Your task to perform on an android device: See recent photos Image 0: 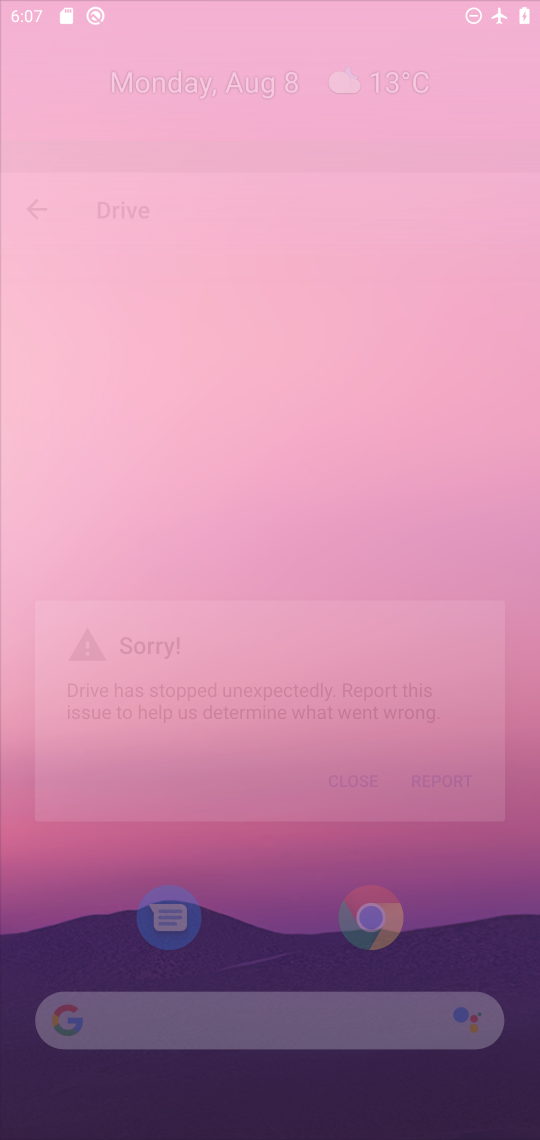
Step 0: press home button
Your task to perform on an android device: See recent photos Image 1: 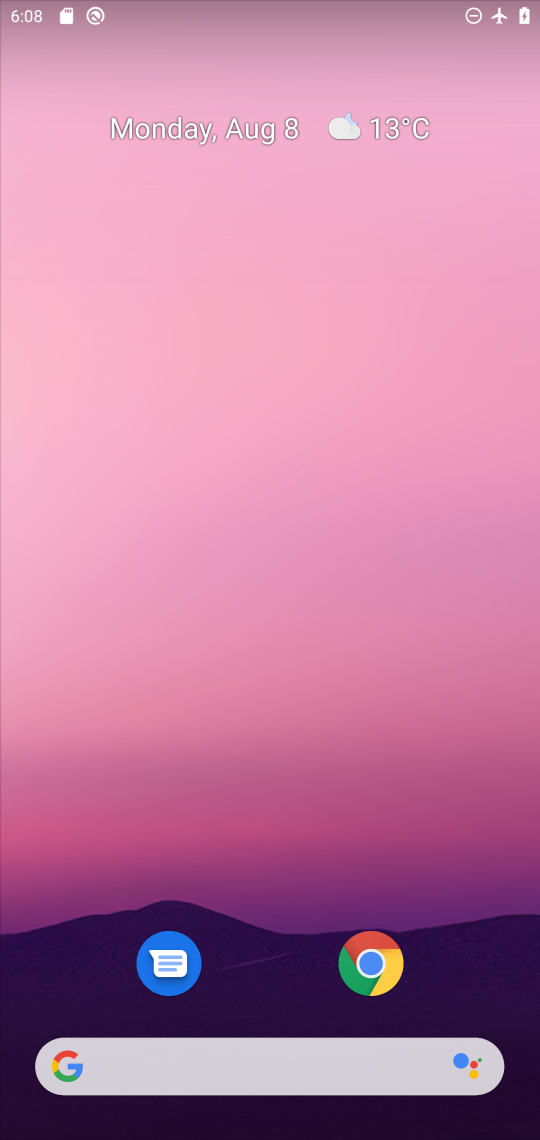
Step 1: press home button
Your task to perform on an android device: See recent photos Image 2: 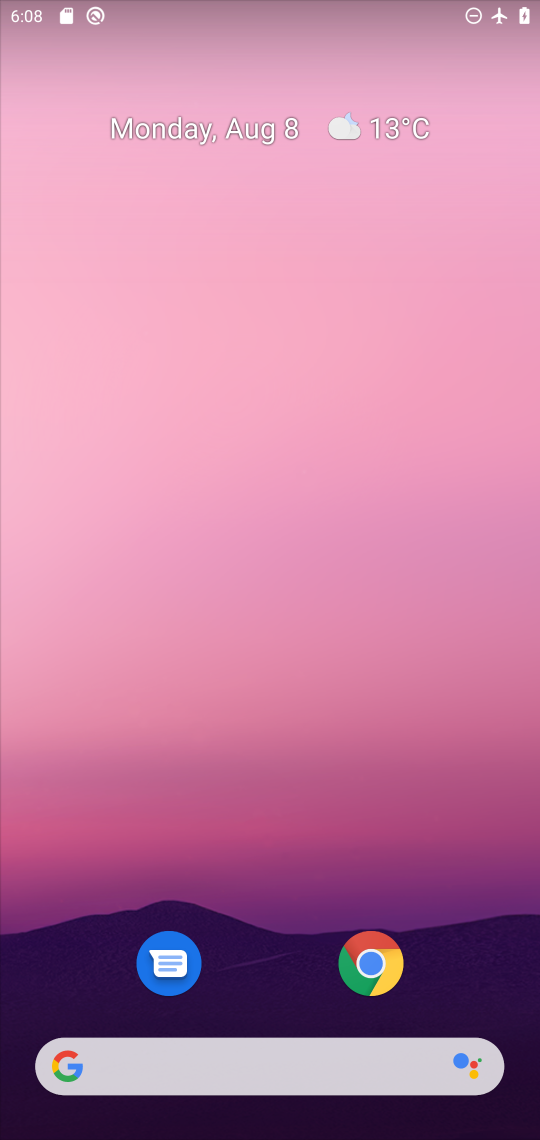
Step 2: drag from (251, 829) to (251, 28)
Your task to perform on an android device: See recent photos Image 3: 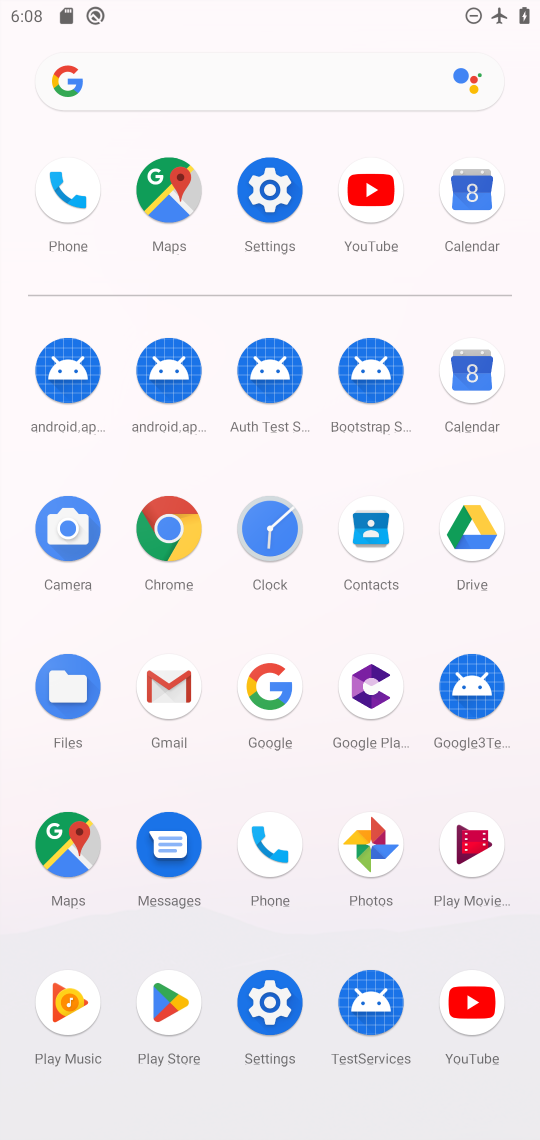
Step 3: click (359, 842)
Your task to perform on an android device: See recent photos Image 4: 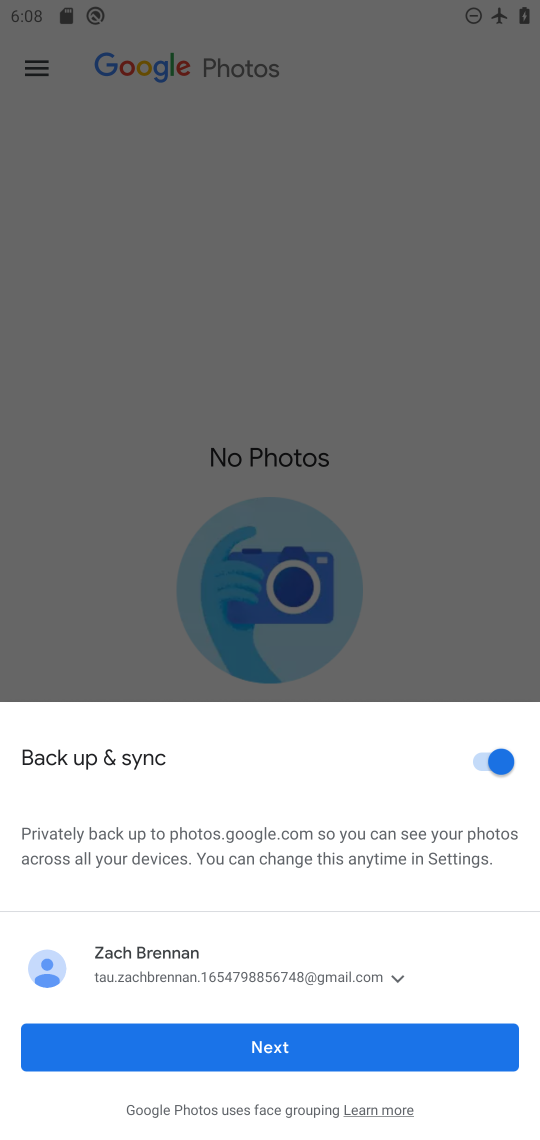
Step 4: click (349, 1044)
Your task to perform on an android device: See recent photos Image 5: 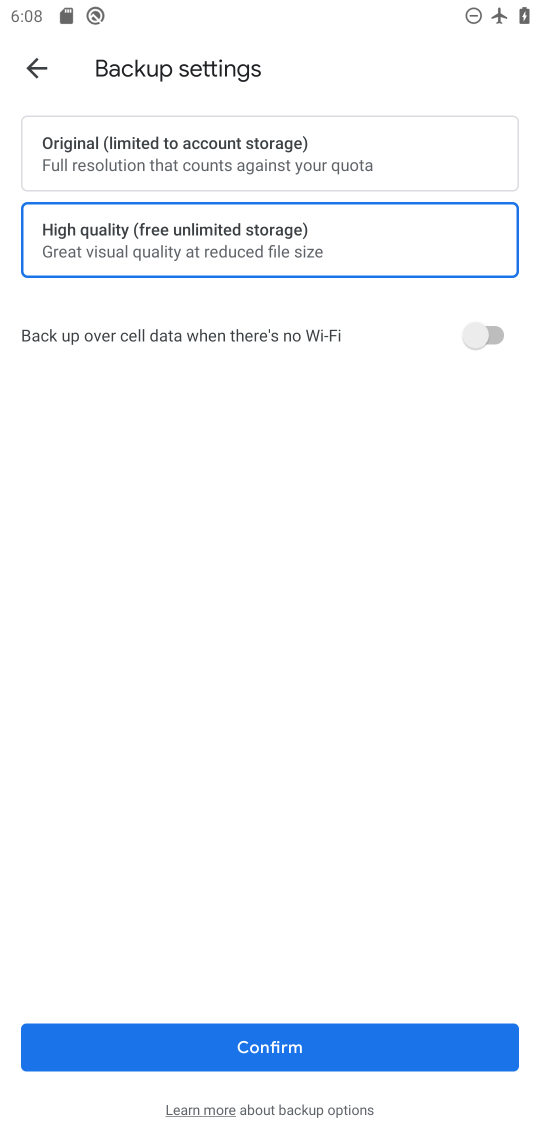
Step 5: click (349, 1044)
Your task to perform on an android device: See recent photos Image 6: 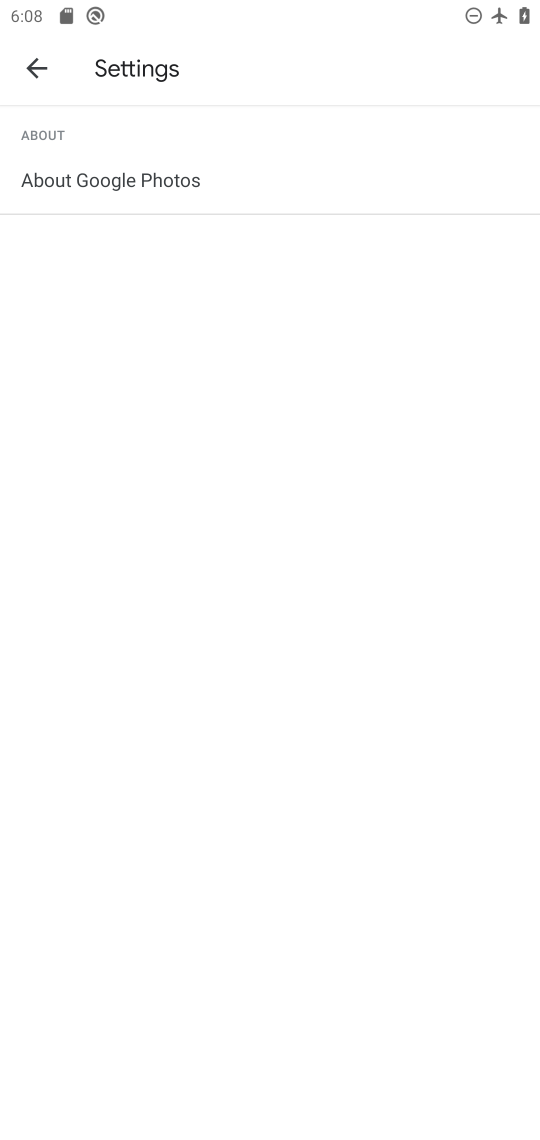
Step 6: click (26, 49)
Your task to perform on an android device: See recent photos Image 7: 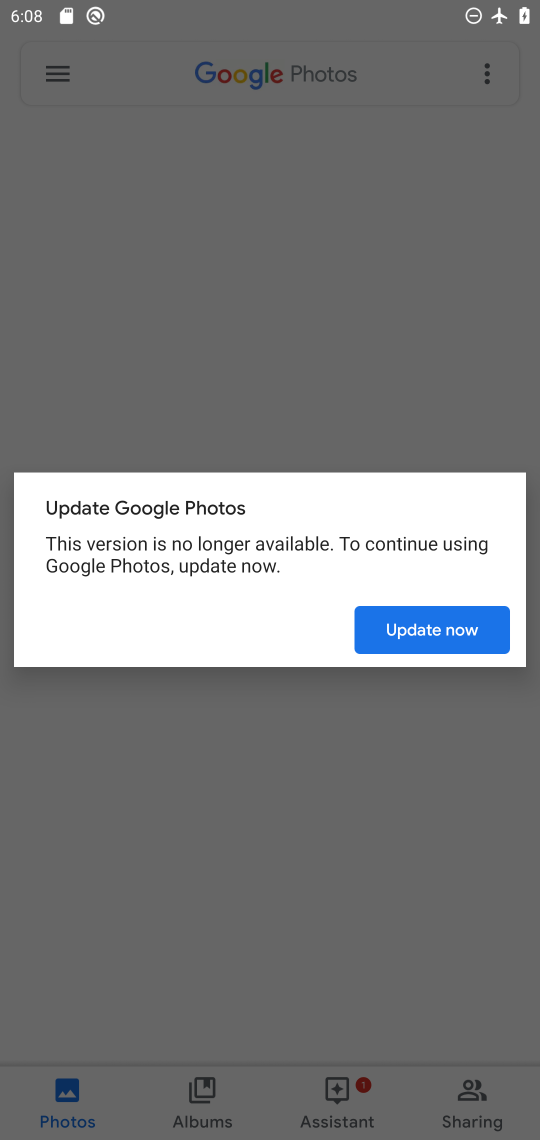
Step 7: click (419, 625)
Your task to perform on an android device: See recent photos Image 8: 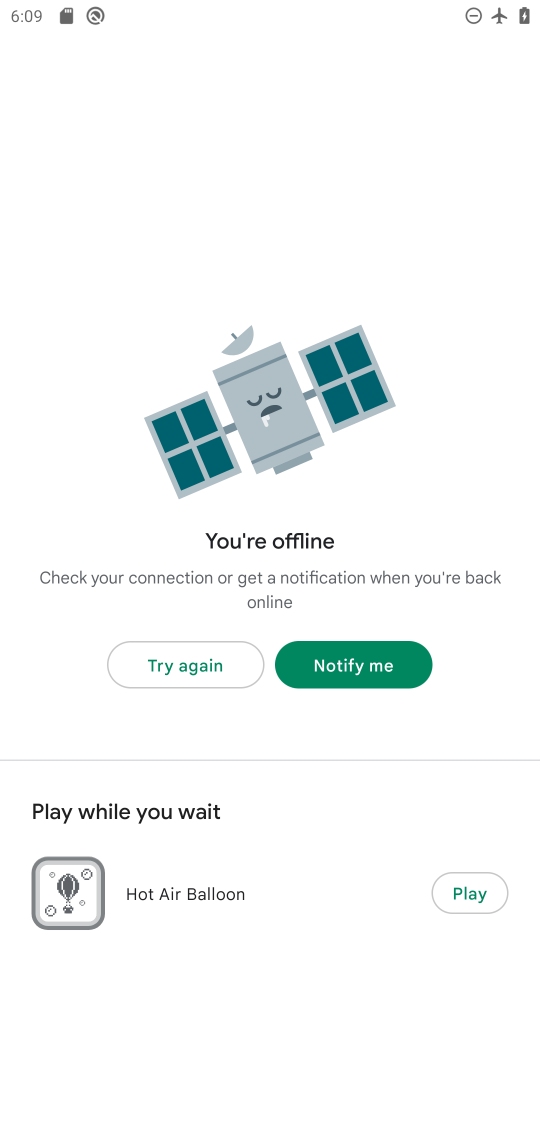
Step 8: click (203, 659)
Your task to perform on an android device: See recent photos Image 9: 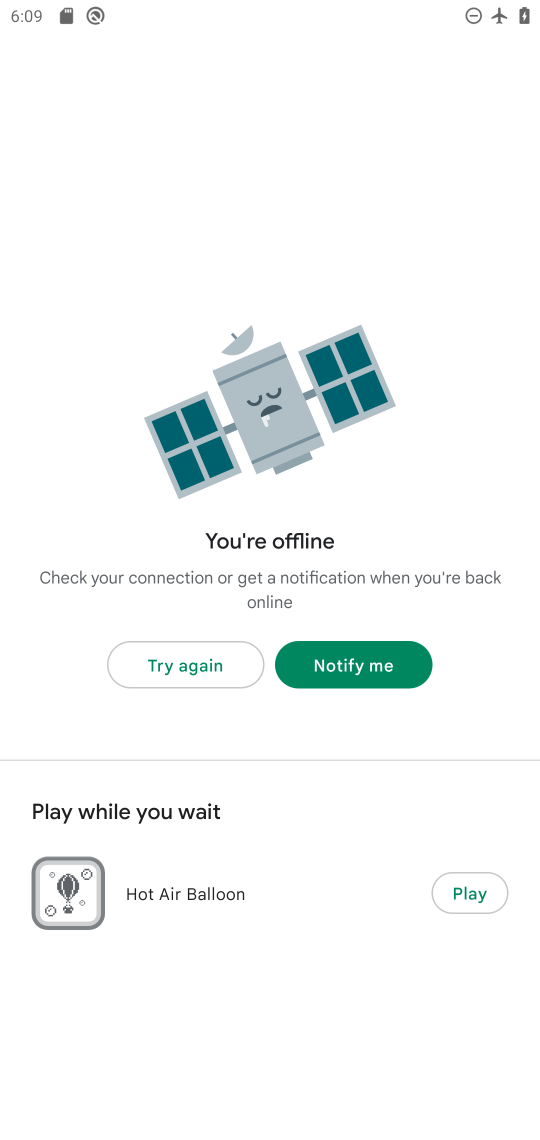
Step 9: task complete